Your task to perform on an android device: What's on my calendar today? Image 0: 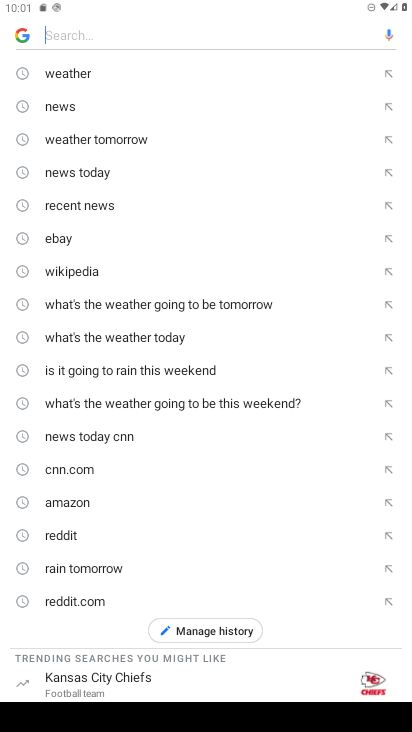
Step 0: press home button
Your task to perform on an android device: What's on my calendar today? Image 1: 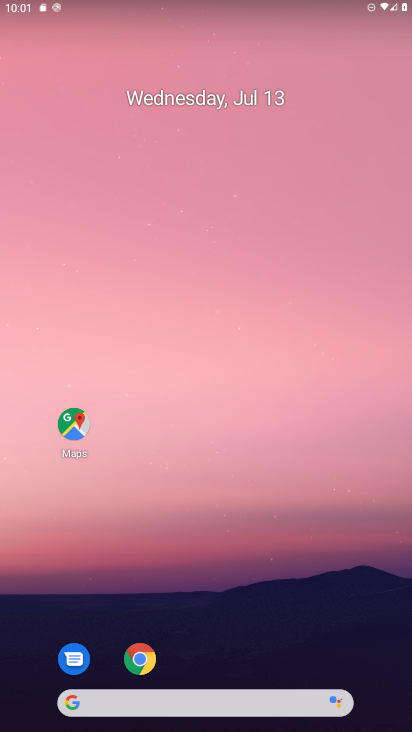
Step 1: drag from (208, 695) to (186, 160)
Your task to perform on an android device: What's on my calendar today? Image 2: 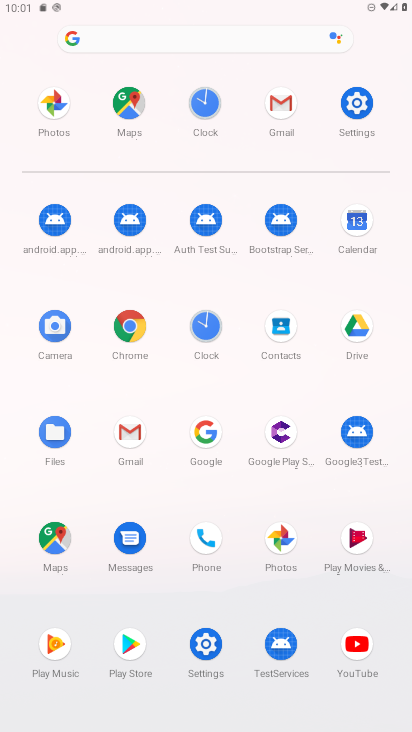
Step 2: click (357, 243)
Your task to perform on an android device: What's on my calendar today? Image 3: 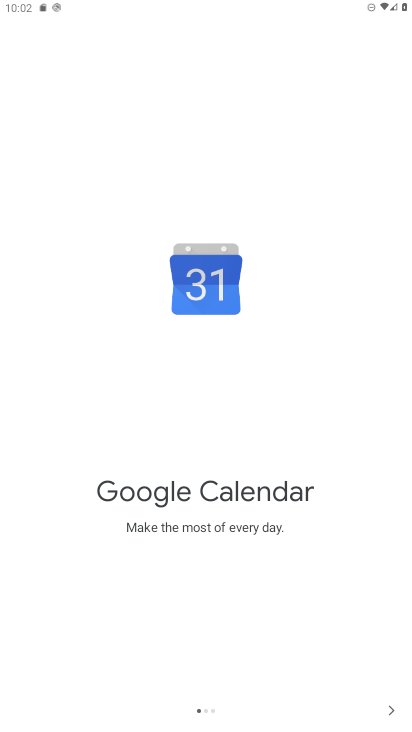
Step 3: click (389, 712)
Your task to perform on an android device: What's on my calendar today? Image 4: 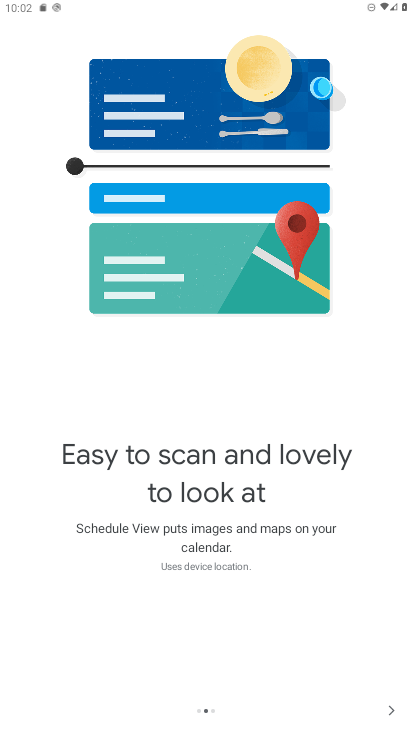
Step 4: click (394, 715)
Your task to perform on an android device: What's on my calendar today? Image 5: 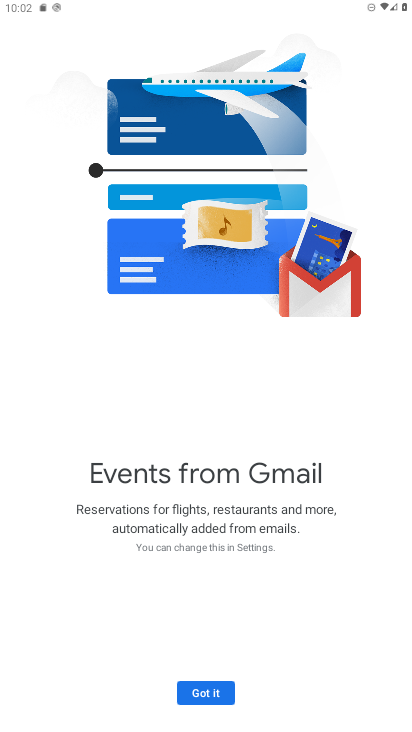
Step 5: click (224, 693)
Your task to perform on an android device: What's on my calendar today? Image 6: 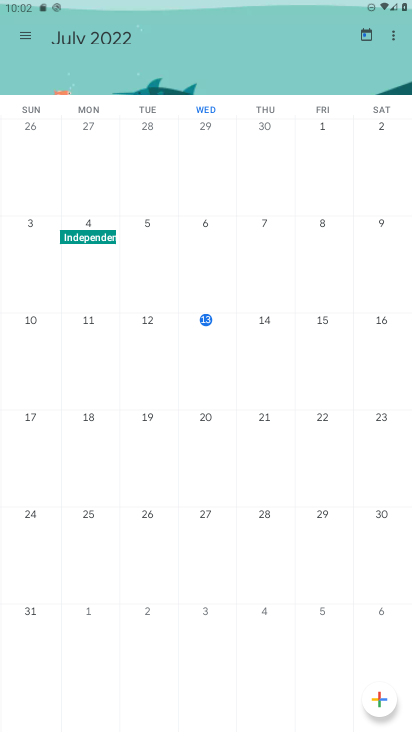
Step 6: click (206, 323)
Your task to perform on an android device: What's on my calendar today? Image 7: 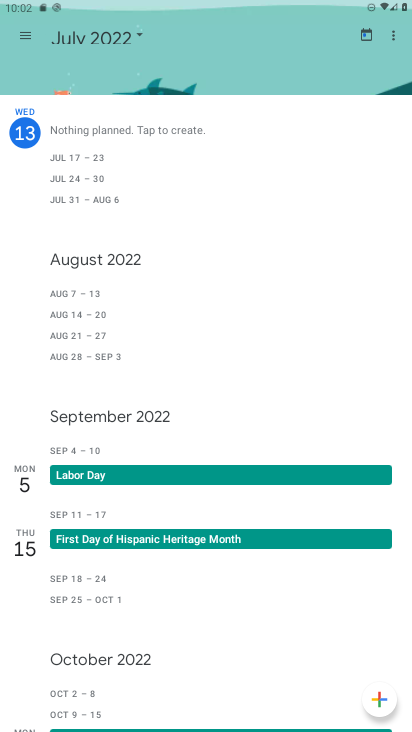
Step 7: task complete